Your task to perform on an android device: turn off wifi Image 0: 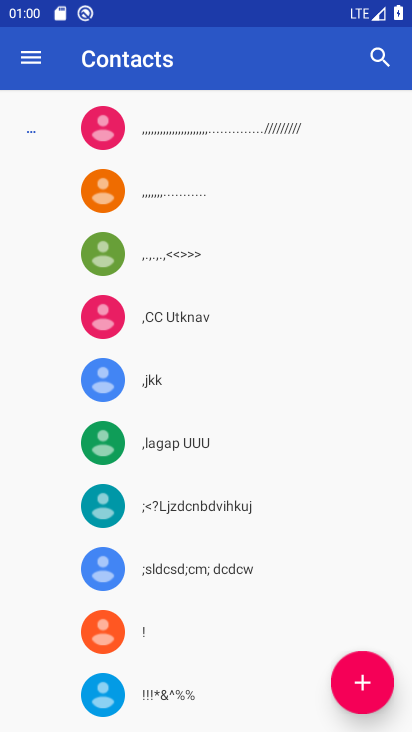
Step 0: press home button
Your task to perform on an android device: turn off wifi Image 1: 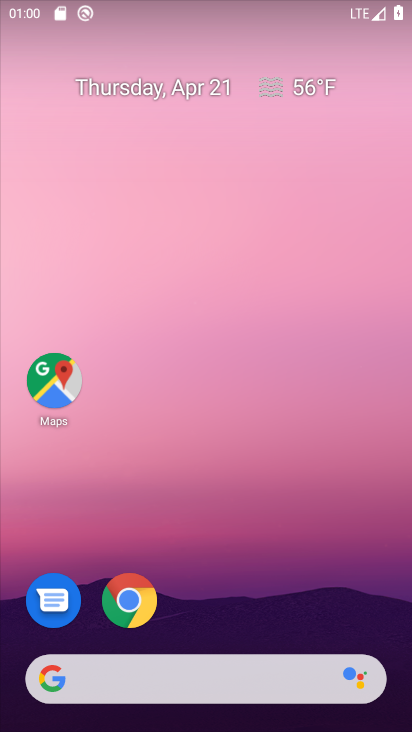
Step 1: drag from (261, 545) to (293, 96)
Your task to perform on an android device: turn off wifi Image 2: 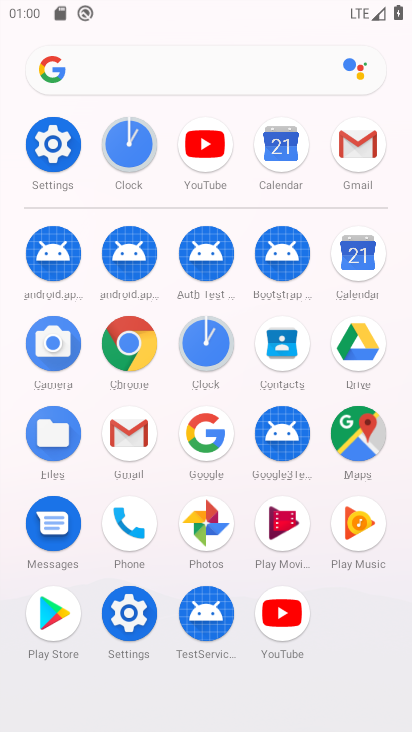
Step 2: click (60, 147)
Your task to perform on an android device: turn off wifi Image 3: 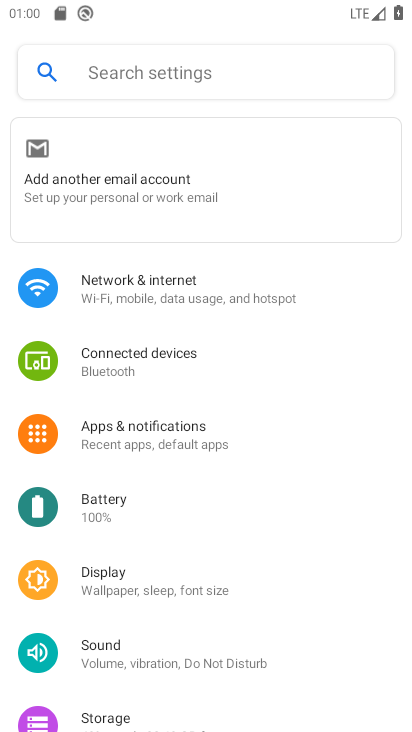
Step 3: click (216, 290)
Your task to perform on an android device: turn off wifi Image 4: 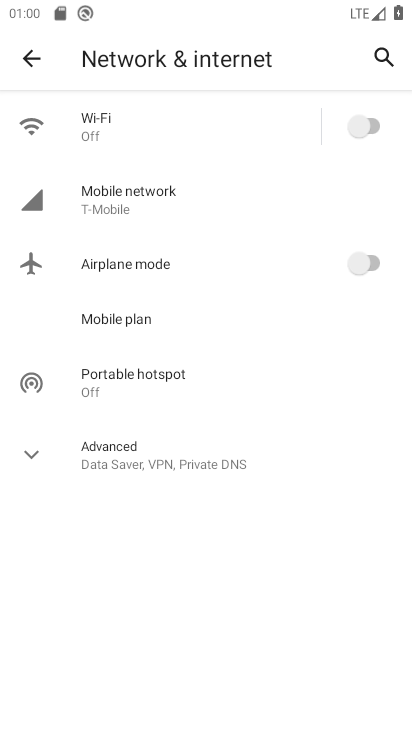
Step 4: task complete